Your task to perform on an android device: Open Chrome and go to settings Image 0: 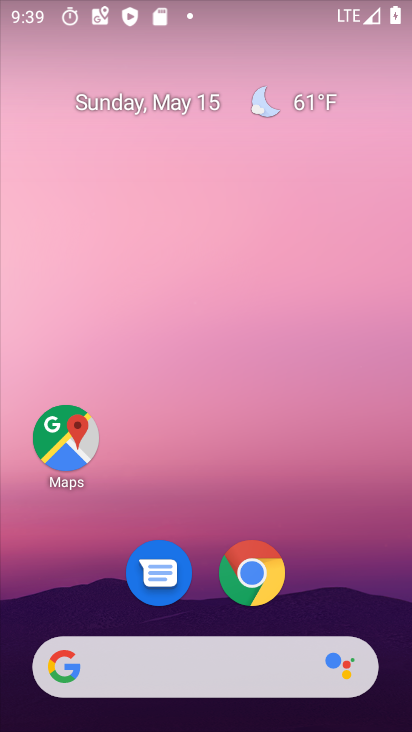
Step 0: press home button
Your task to perform on an android device: Open Chrome and go to settings Image 1: 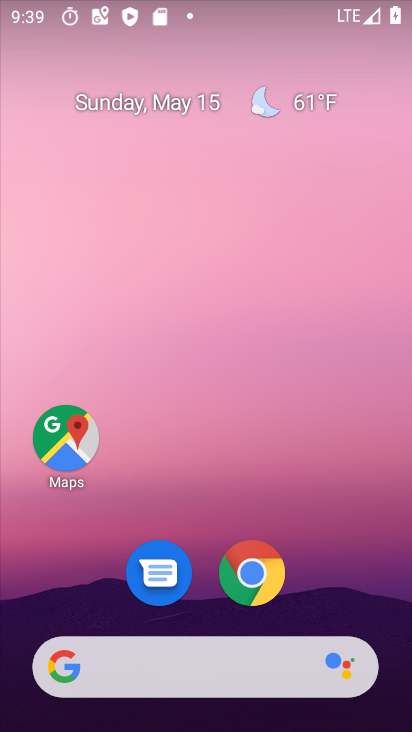
Step 1: click (252, 573)
Your task to perform on an android device: Open Chrome and go to settings Image 2: 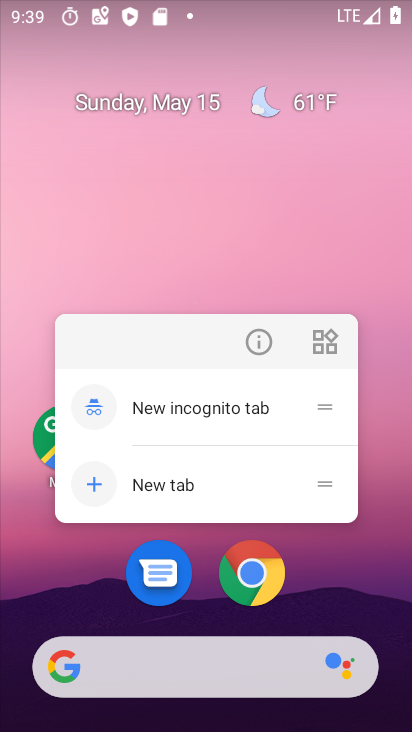
Step 2: click (264, 580)
Your task to perform on an android device: Open Chrome and go to settings Image 3: 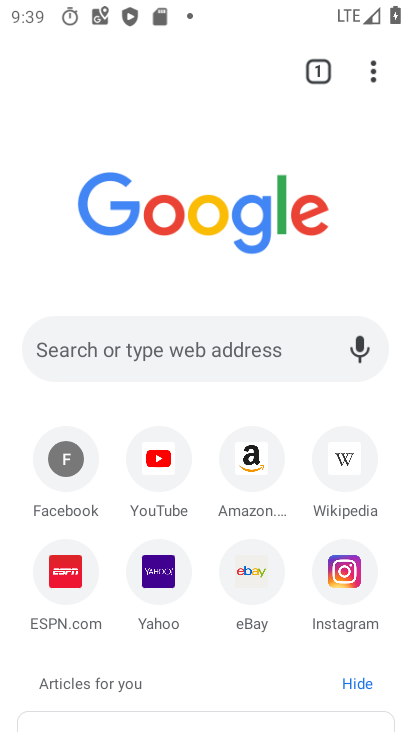
Step 3: click (372, 75)
Your task to perform on an android device: Open Chrome and go to settings Image 4: 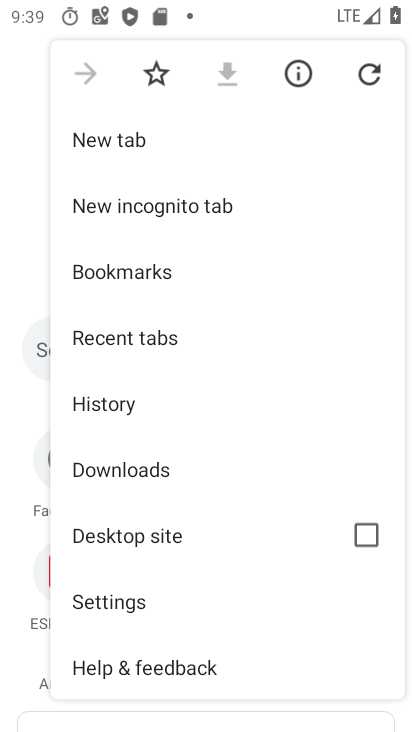
Step 4: click (131, 611)
Your task to perform on an android device: Open Chrome and go to settings Image 5: 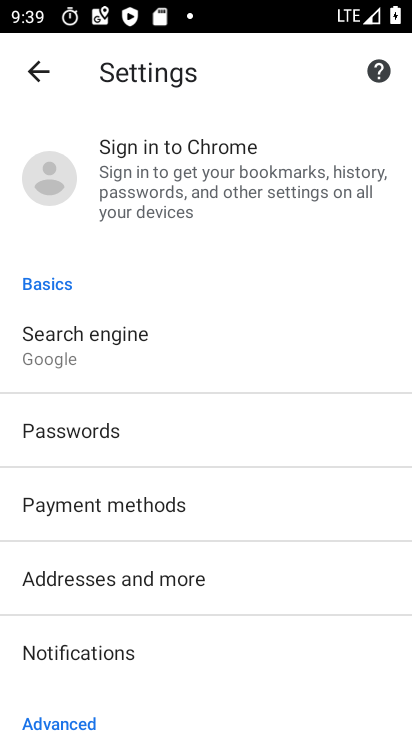
Step 5: task complete